Your task to perform on an android device: Show the shopping cart on costco.com. Search for "apple airpods" on costco.com, select the first entry, and add it to the cart. Image 0: 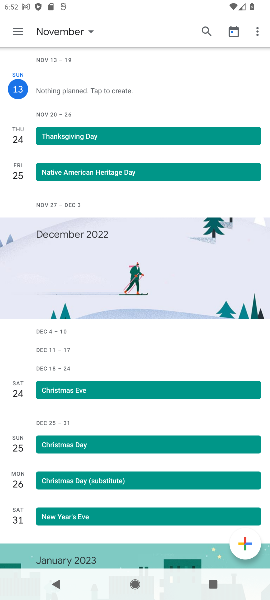
Step 0: press home button
Your task to perform on an android device: Show the shopping cart on costco.com. Search for "apple airpods" on costco.com, select the first entry, and add it to the cart. Image 1: 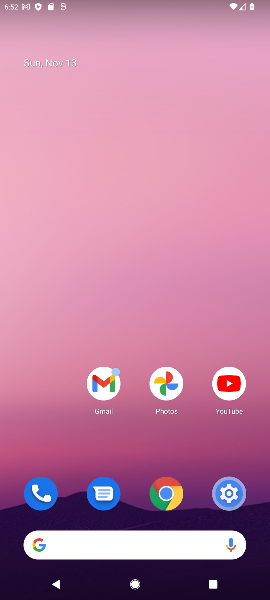
Step 1: drag from (125, 369) to (169, 20)
Your task to perform on an android device: Show the shopping cart on costco.com. Search for "apple airpods" on costco.com, select the first entry, and add it to the cart. Image 2: 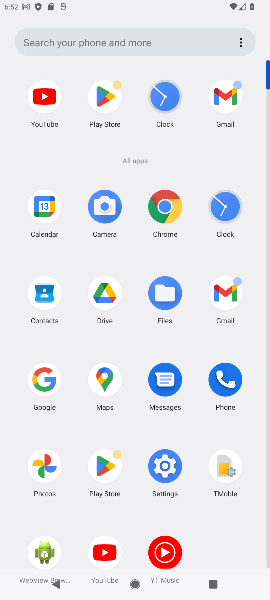
Step 2: click (34, 373)
Your task to perform on an android device: Show the shopping cart on costco.com. Search for "apple airpods" on costco.com, select the first entry, and add it to the cart. Image 3: 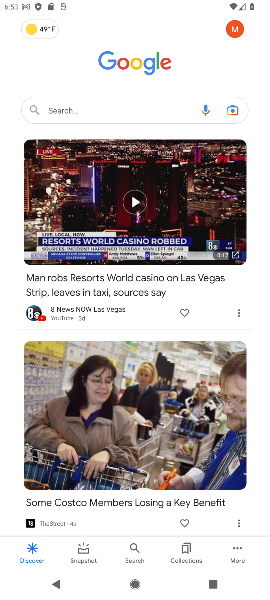
Step 3: click (136, 106)
Your task to perform on an android device: Show the shopping cart on costco.com. Search for "apple airpods" on costco.com, select the first entry, and add it to the cart. Image 4: 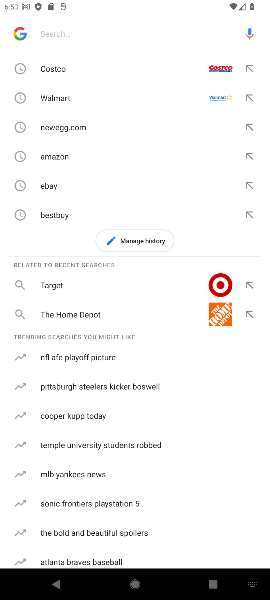
Step 4: click (76, 75)
Your task to perform on an android device: Show the shopping cart on costco.com. Search for "apple airpods" on costco.com, select the first entry, and add it to the cart. Image 5: 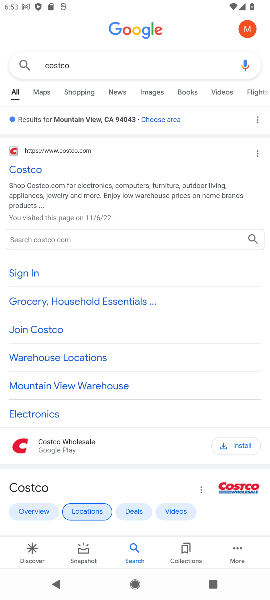
Step 5: click (26, 170)
Your task to perform on an android device: Show the shopping cart on costco.com. Search for "apple airpods" on costco.com, select the first entry, and add it to the cart. Image 6: 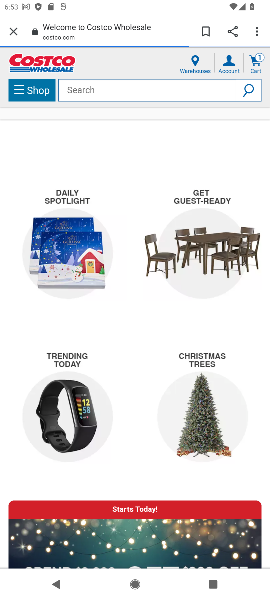
Step 6: click (102, 92)
Your task to perform on an android device: Show the shopping cart on costco.com. Search for "apple airpods" on costco.com, select the first entry, and add it to the cart. Image 7: 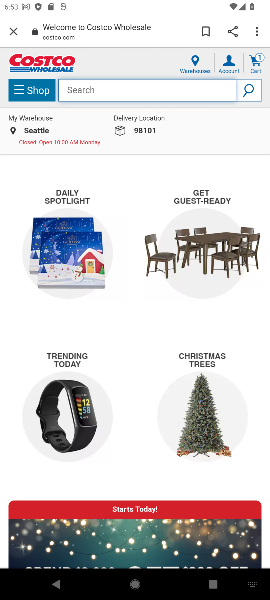
Step 7: type "apple airpods"
Your task to perform on an android device: Show the shopping cart on costco.com. Search for "apple airpods" on costco.com, select the first entry, and add it to the cart. Image 8: 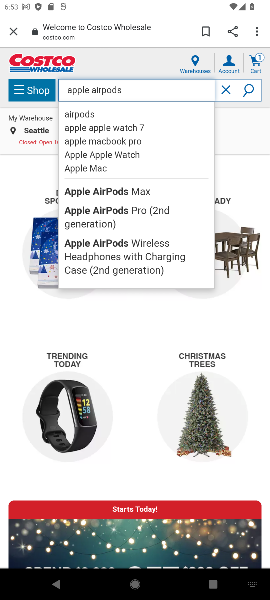
Step 8: click (117, 250)
Your task to perform on an android device: Show the shopping cart on costco.com. Search for "apple airpods" on costco.com, select the first entry, and add it to the cart. Image 9: 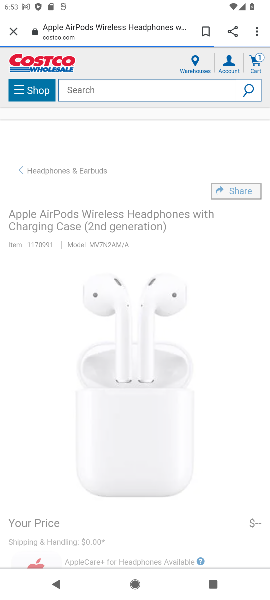
Step 9: drag from (136, 395) to (186, 164)
Your task to perform on an android device: Show the shopping cart on costco.com. Search for "apple airpods" on costco.com, select the first entry, and add it to the cart. Image 10: 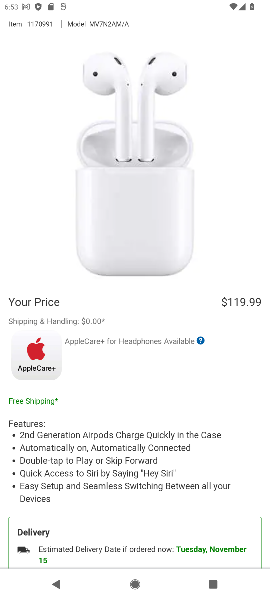
Step 10: drag from (136, 456) to (210, 120)
Your task to perform on an android device: Show the shopping cart on costco.com. Search for "apple airpods" on costco.com, select the first entry, and add it to the cart. Image 11: 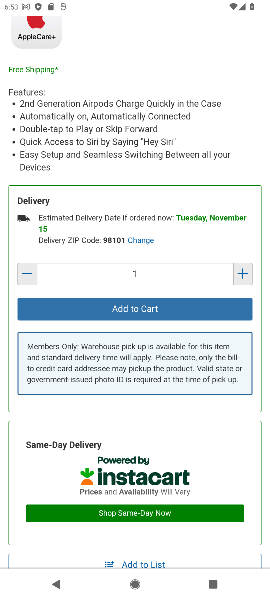
Step 11: click (127, 310)
Your task to perform on an android device: Show the shopping cart on costco.com. Search for "apple airpods" on costco.com, select the first entry, and add it to the cart. Image 12: 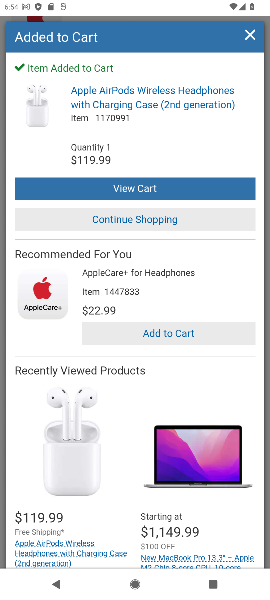
Step 12: task complete